Your task to perform on an android device: set default search engine in the chrome app Image 0: 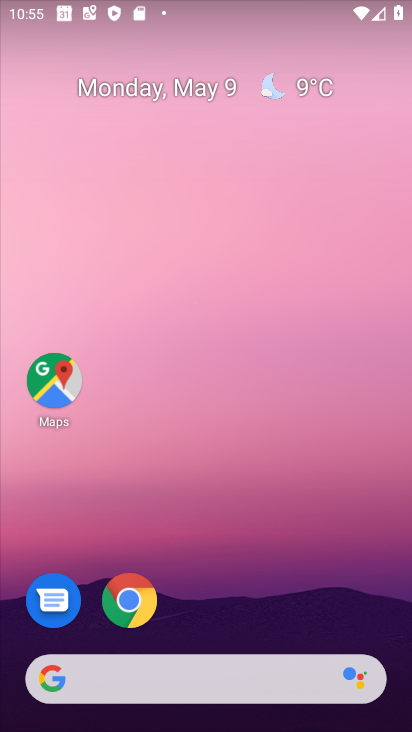
Step 0: drag from (336, 486) to (329, 129)
Your task to perform on an android device: set default search engine in the chrome app Image 1: 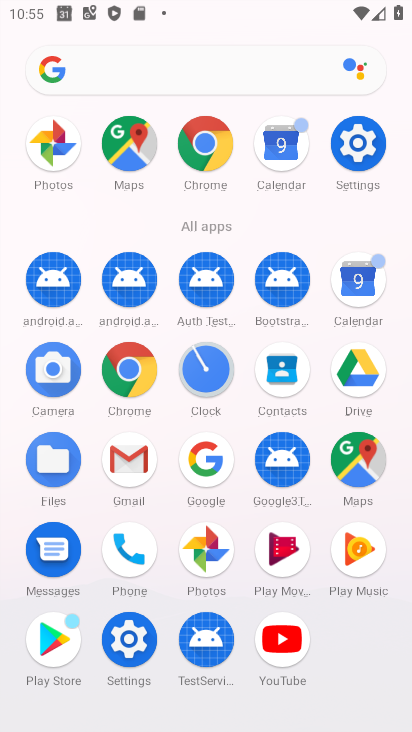
Step 1: click (124, 378)
Your task to perform on an android device: set default search engine in the chrome app Image 2: 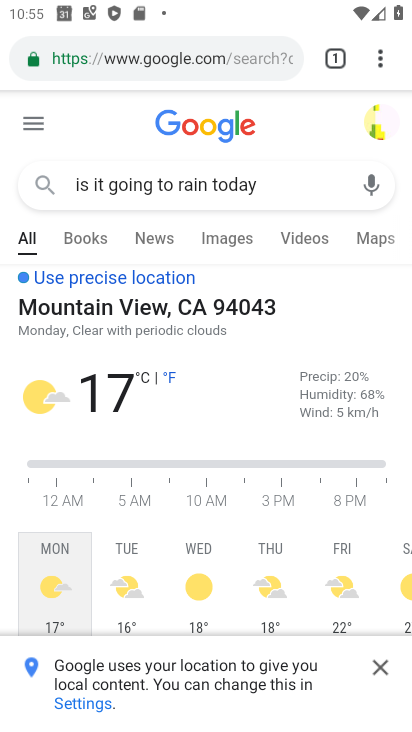
Step 2: click (383, 63)
Your task to perform on an android device: set default search engine in the chrome app Image 3: 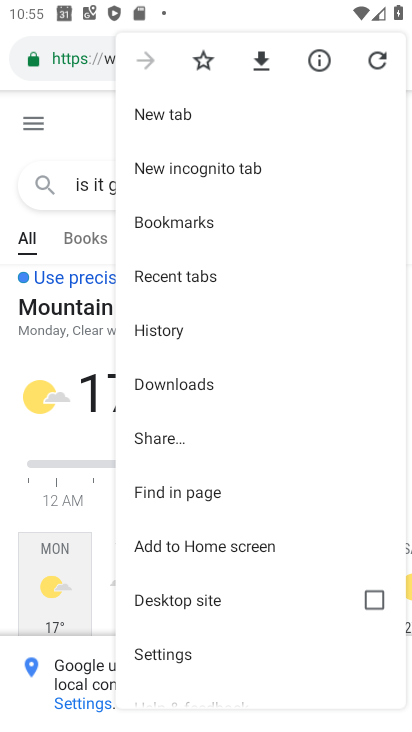
Step 3: click (199, 653)
Your task to perform on an android device: set default search engine in the chrome app Image 4: 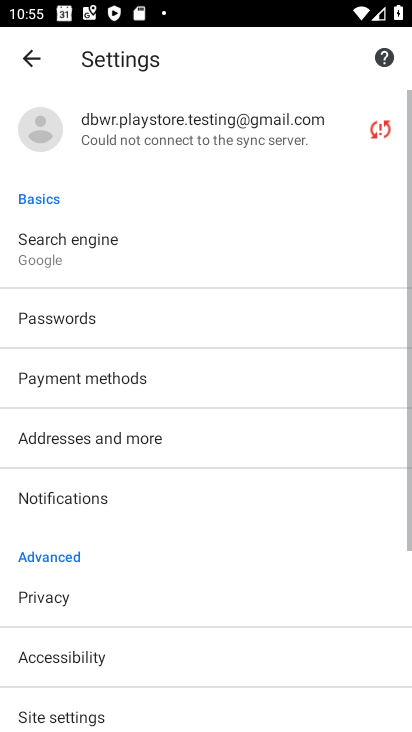
Step 4: click (92, 247)
Your task to perform on an android device: set default search engine in the chrome app Image 5: 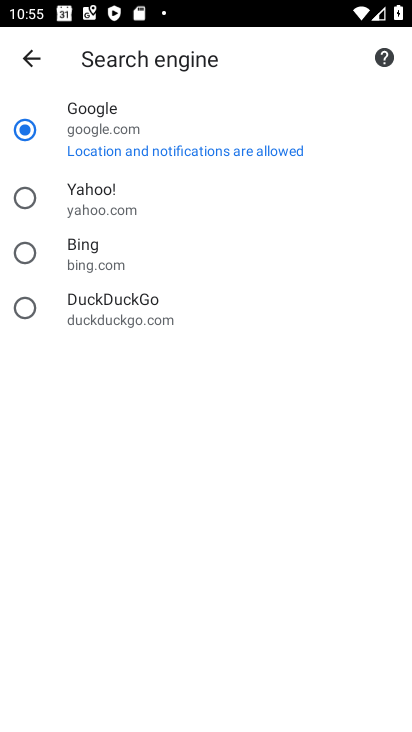
Step 5: click (19, 189)
Your task to perform on an android device: set default search engine in the chrome app Image 6: 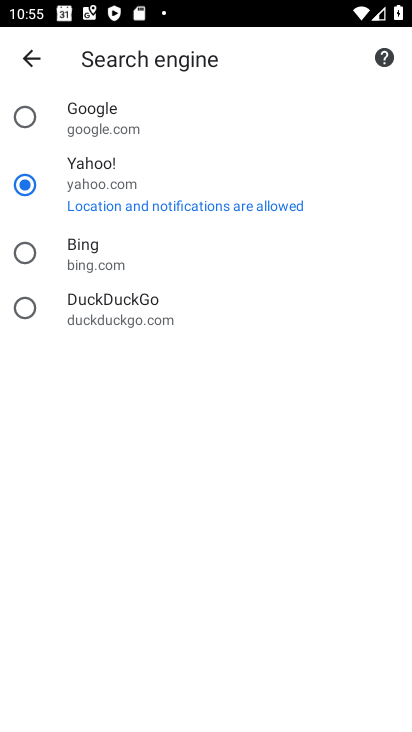
Step 6: task complete